Your task to perform on an android device: Go to notification settings Image 0: 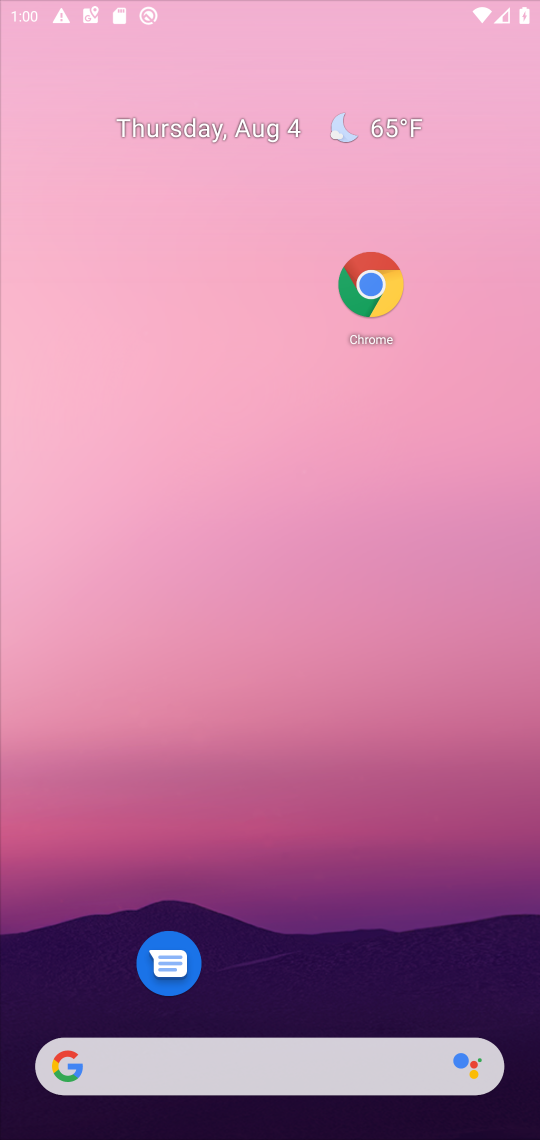
Step 0: press home button
Your task to perform on an android device: Go to notification settings Image 1: 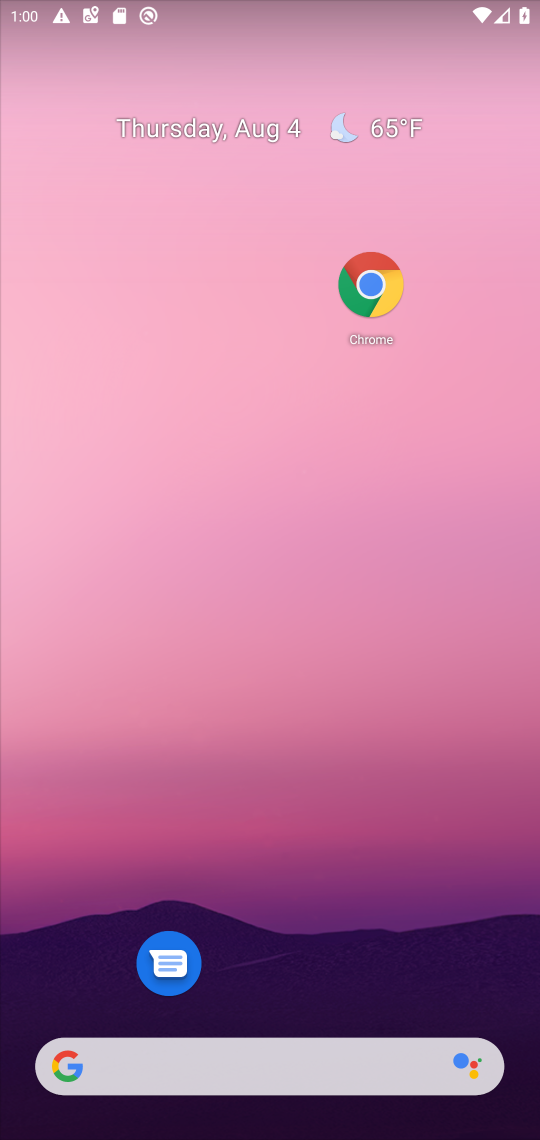
Step 1: drag from (265, 990) to (254, 258)
Your task to perform on an android device: Go to notification settings Image 2: 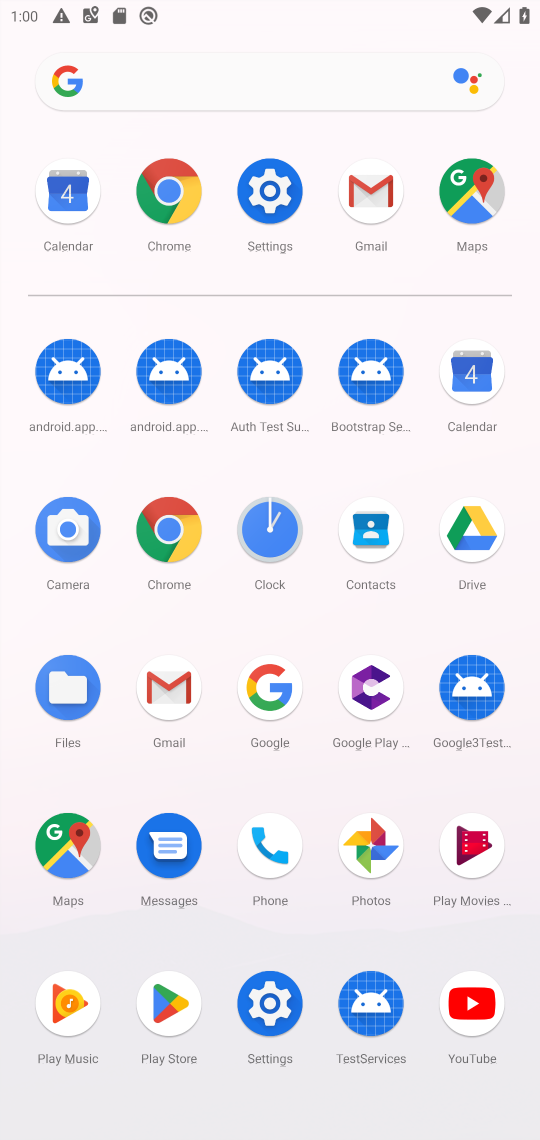
Step 2: click (264, 162)
Your task to perform on an android device: Go to notification settings Image 3: 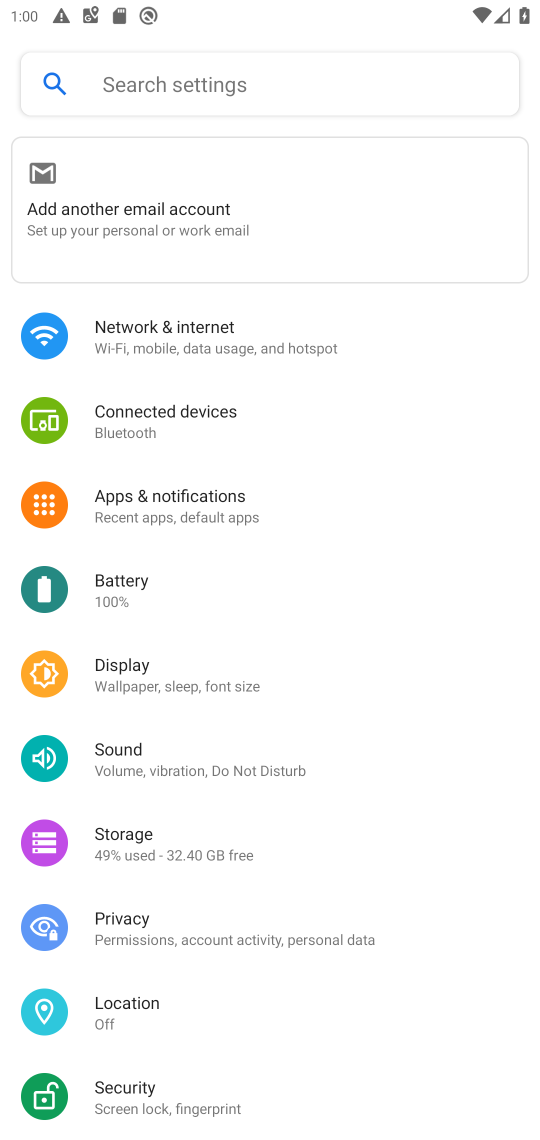
Step 3: click (194, 499)
Your task to perform on an android device: Go to notification settings Image 4: 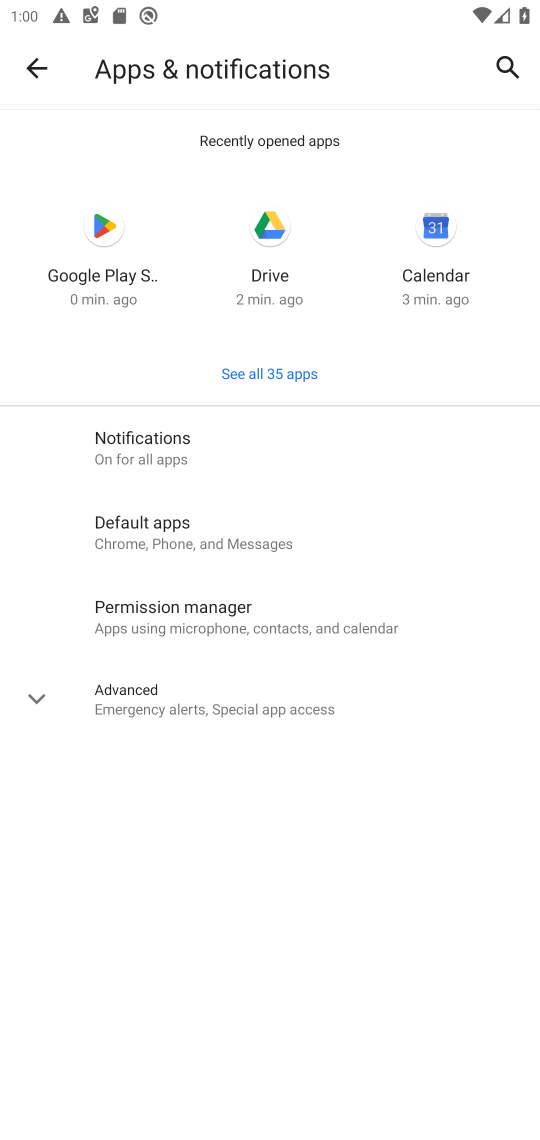
Step 4: click (188, 452)
Your task to perform on an android device: Go to notification settings Image 5: 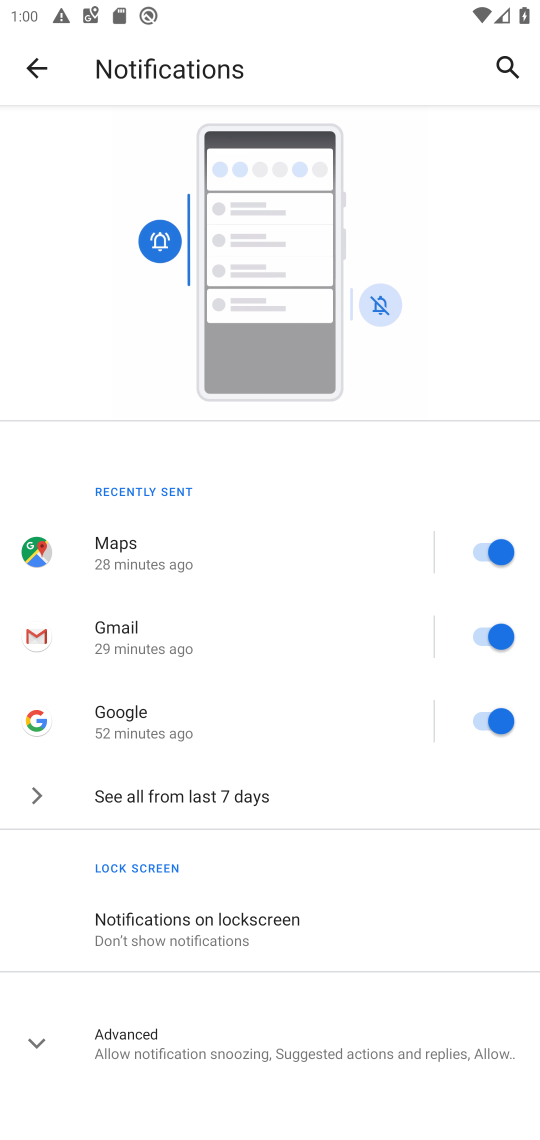
Step 5: task complete